Your task to perform on an android device: Search for sushi restaurants on Maps Image 0: 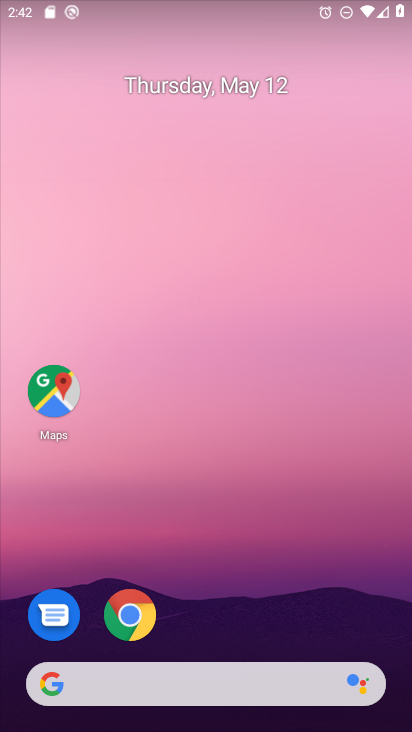
Step 0: drag from (215, 667) to (335, 5)
Your task to perform on an android device: Search for sushi restaurants on Maps Image 1: 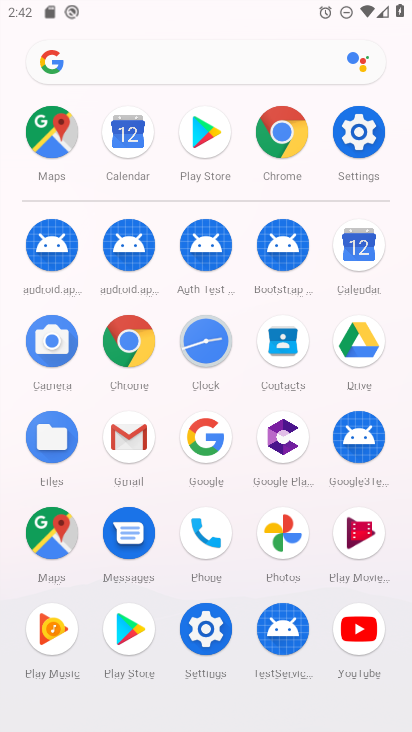
Step 1: click (45, 519)
Your task to perform on an android device: Search for sushi restaurants on Maps Image 2: 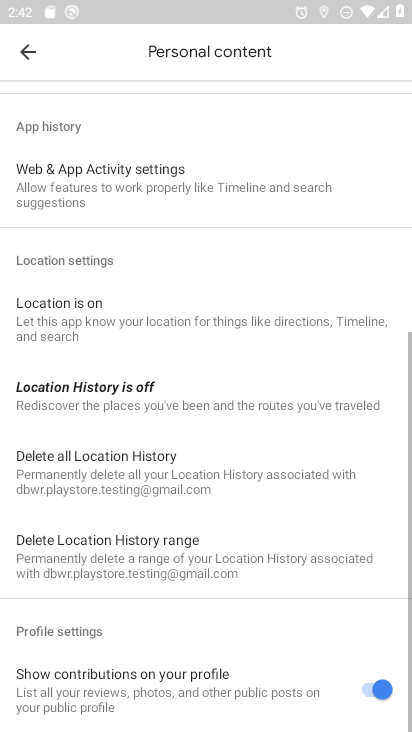
Step 2: press back button
Your task to perform on an android device: Search for sushi restaurants on Maps Image 3: 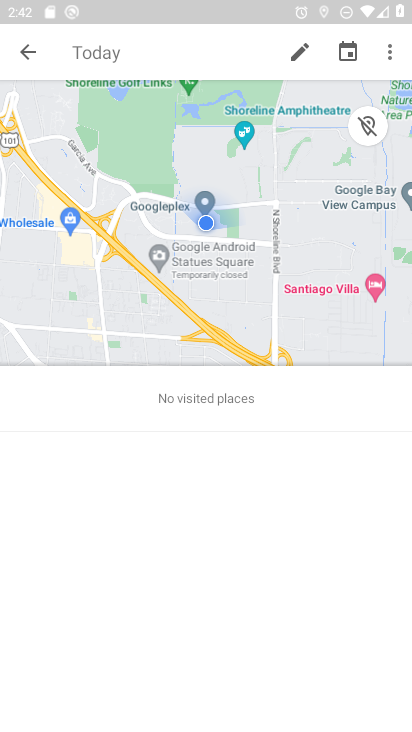
Step 3: press back button
Your task to perform on an android device: Search for sushi restaurants on Maps Image 4: 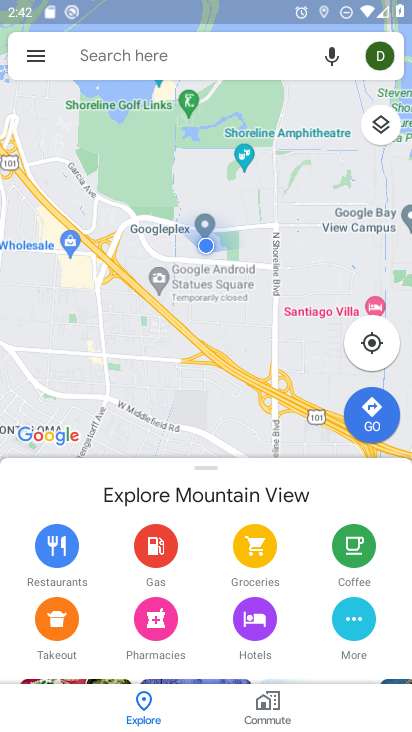
Step 4: click (201, 55)
Your task to perform on an android device: Search for sushi restaurants on Maps Image 5: 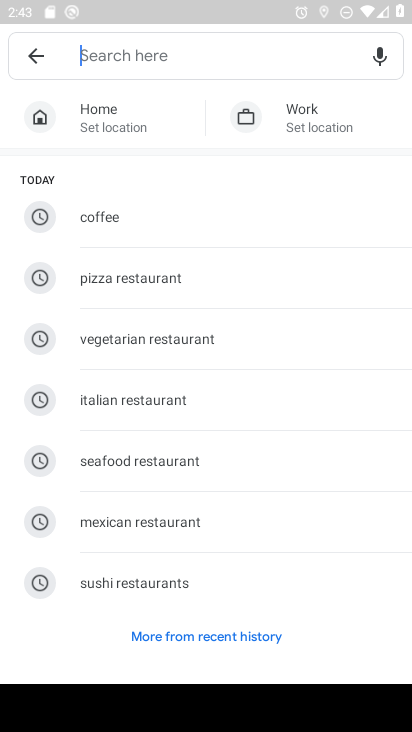
Step 5: click (200, 570)
Your task to perform on an android device: Search for sushi restaurants on Maps Image 6: 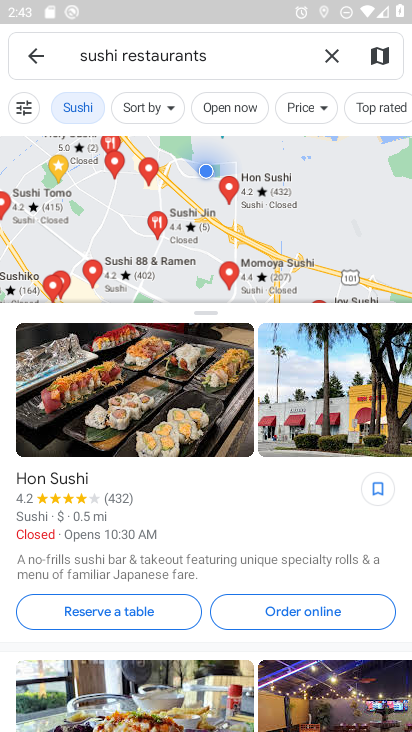
Step 6: task complete